Your task to perform on an android device: Open calendar and show me the third week of next month Image 0: 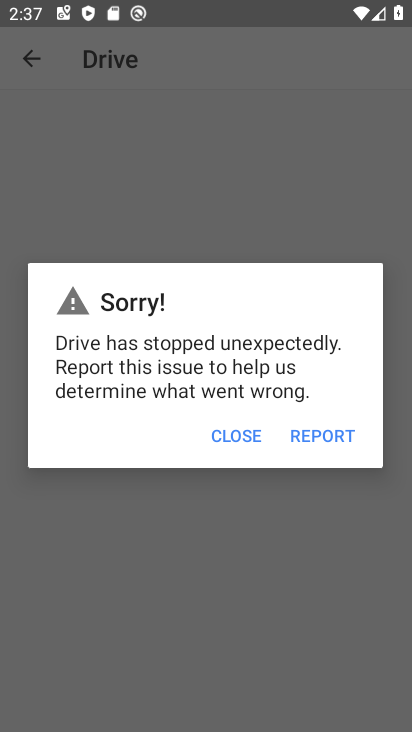
Step 0: press home button
Your task to perform on an android device: Open calendar and show me the third week of next month Image 1: 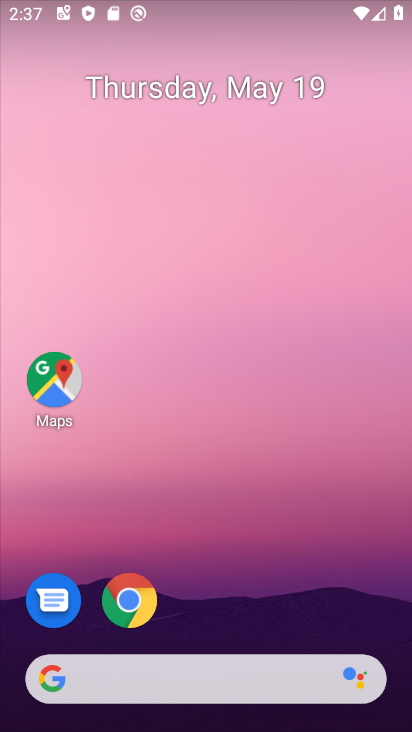
Step 1: drag from (400, 687) to (282, 7)
Your task to perform on an android device: Open calendar and show me the third week of next month Image 2: 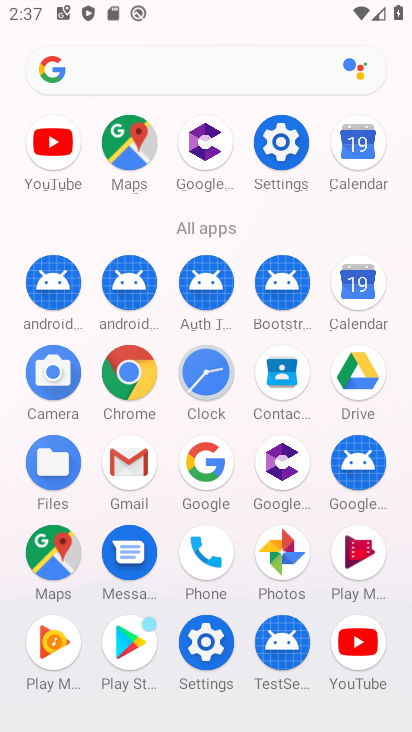
Step 2: click (358, 291)
Your task to perform on an android device: Open calendar and show me the third week of next month Image 3: 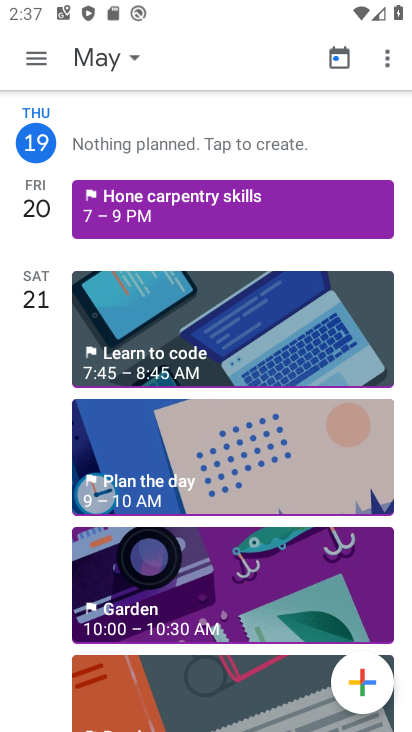
Step 3: click (142, 58)
Your task to perform on an android device: Open calendar and show me the third week of next month Image 4: 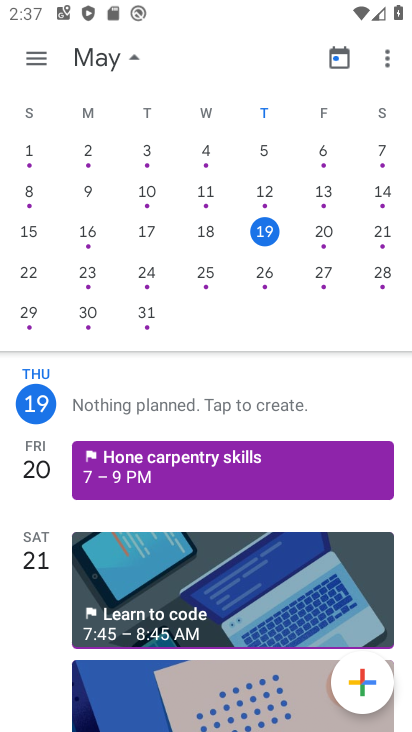
Step 4: drag from (395, 208) to (105, 187)
Your task to perform on an android device: Open calendar and show me the third week of next month Image 5: 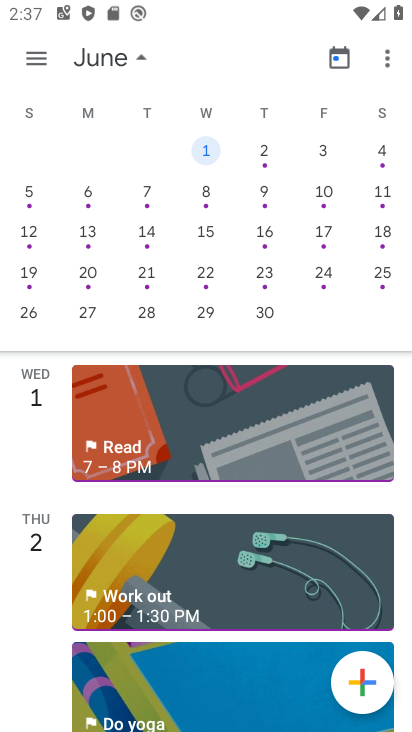
Step 5: click (206, 229)
Your task to perform on an android device: Open calendar and show me the third week of next month Image 6: 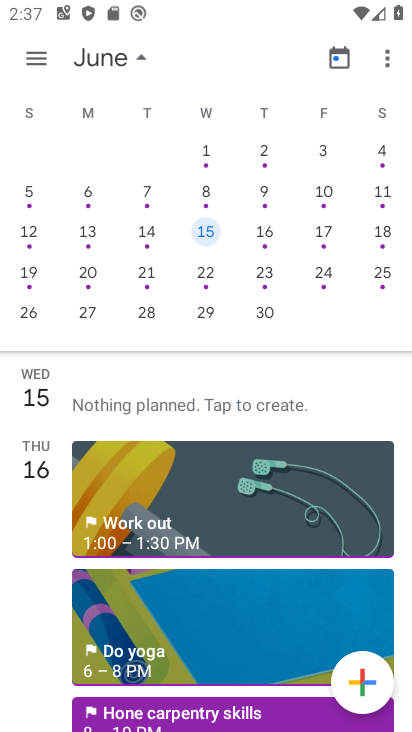
Step 6: click (33, 62)
Your task to perform on an android device: Open calendar and show me the third week of next month Image 7: 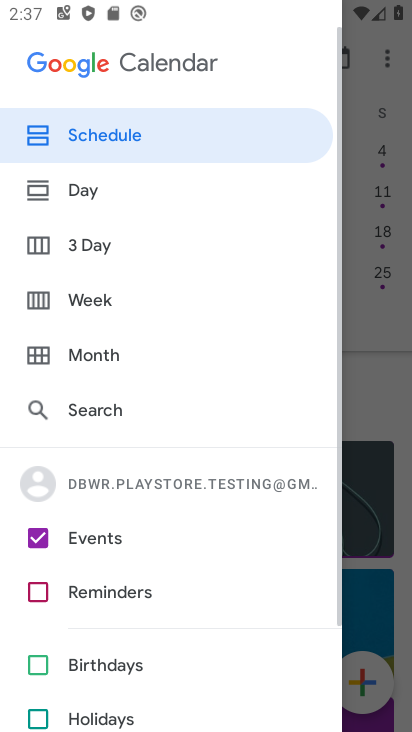
Step 7: click (89, 295)
Your task to perform on an android device: Open calendar and show me the third week of next month Image 8: 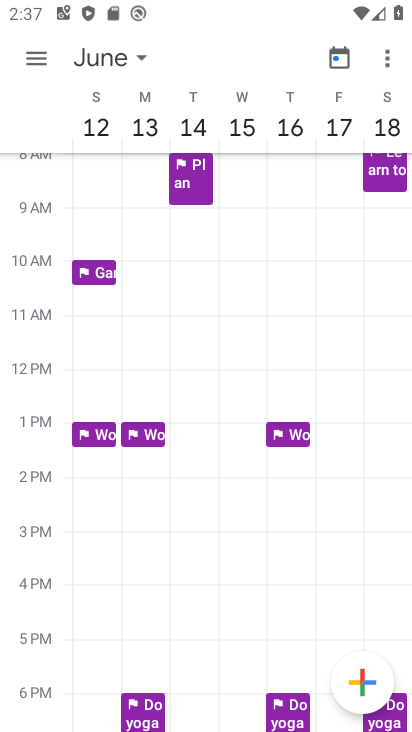
Step 8: task complete